Your task to perform on an android device: Open Yahoo.com Image 0: 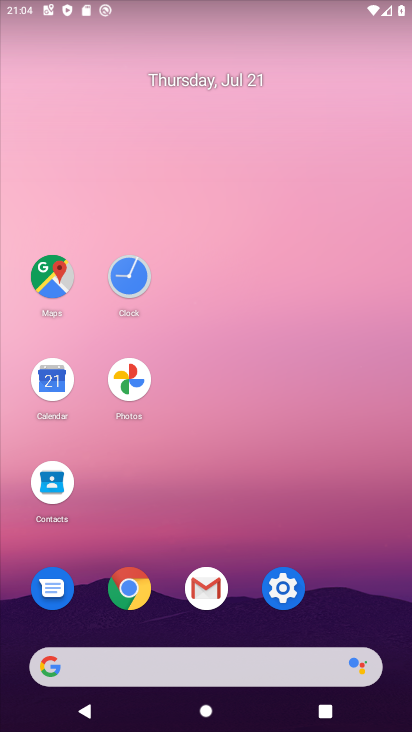
Step 0: click (124, 587)
Your task to perform on an android device: Open Yahoo.com Image 1: 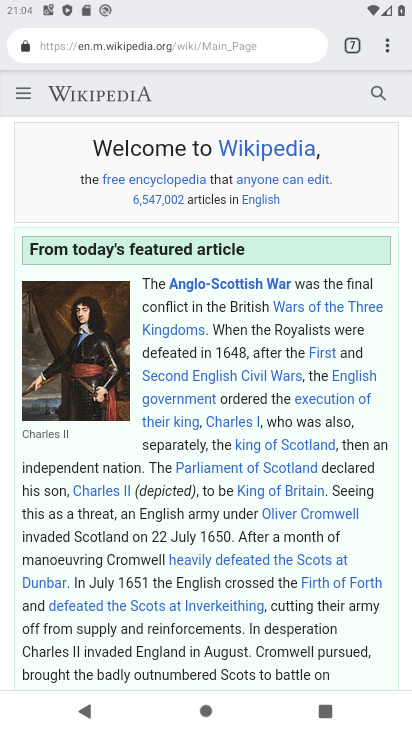
Step 1: click (389, 42)
Your task to perform on an android device: Open Yahoo.com Image 2: 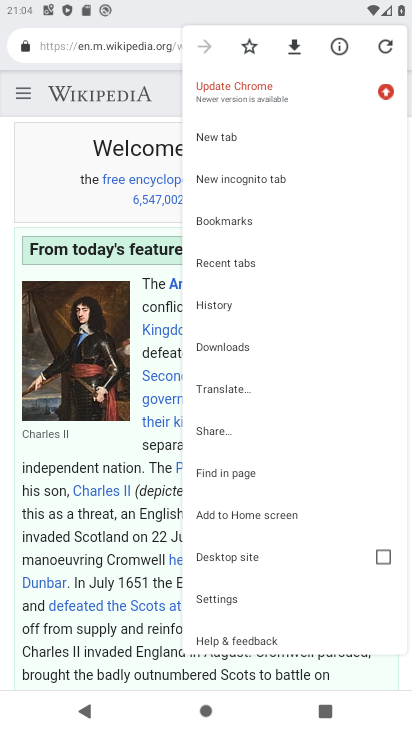
Step 2: click (221, 133)
Your task to perform on an android device: Open Yahoo.com Image 3: 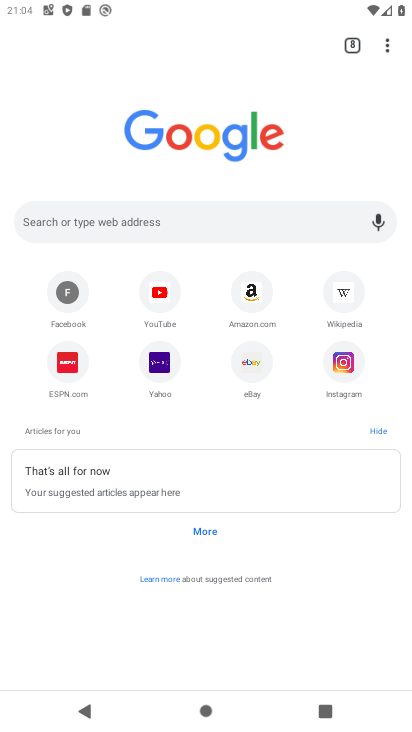
Step 3: click (158, 364)
Your task to perform on an android device: Open Yahoo.com Image 4: 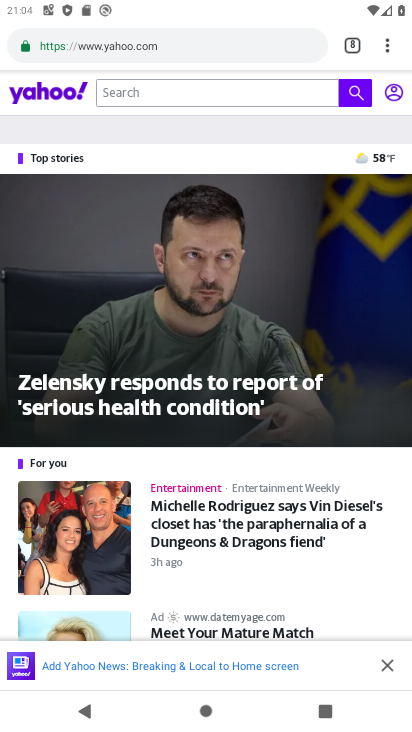
Step 4: task complete